Your task to perform on an android device: check battery use Image 0: 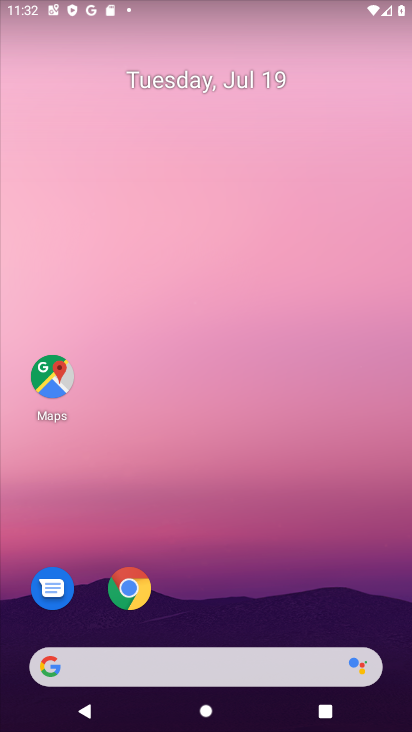
Step 0: drag from (235, 711) to (229, 319)
Your task to perform on an android device: check battery use Image 1: 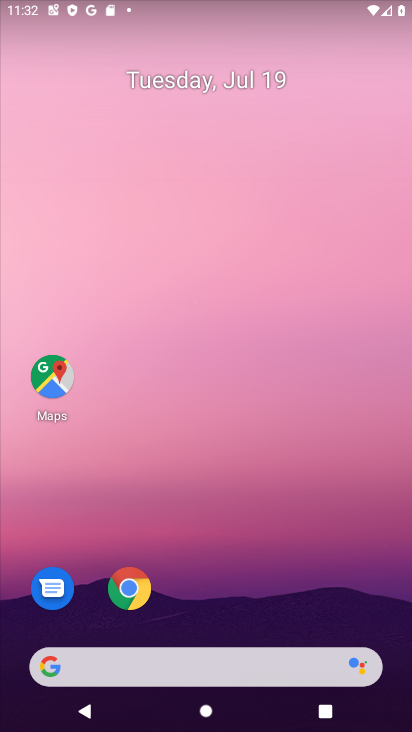
Step 1: drag from (259, 724) to (244, 207)
Your task to perform on an android device: check battery use Image 2: 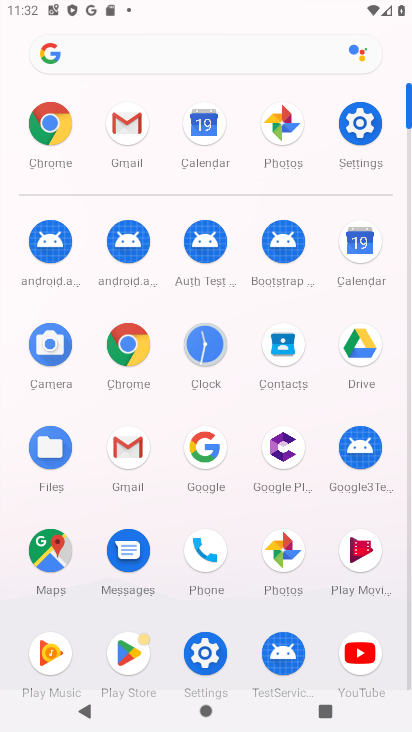
Step 2: click (356, 127)
Your task to perform on an android device: check battery use Image 3: 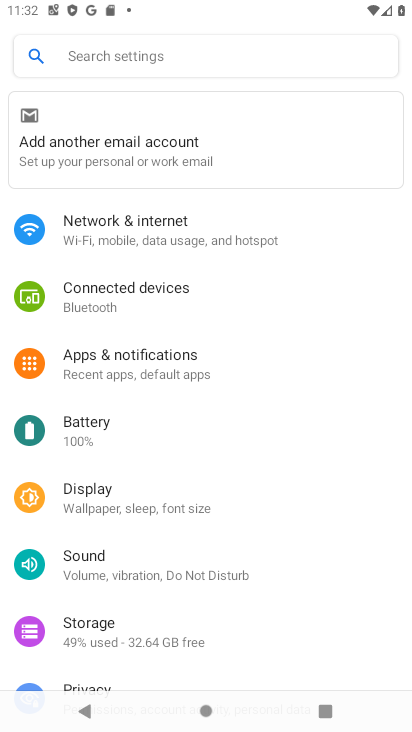
Step 3: click (77, 425)
Your task to perform on an android device: check battery use Image 4: 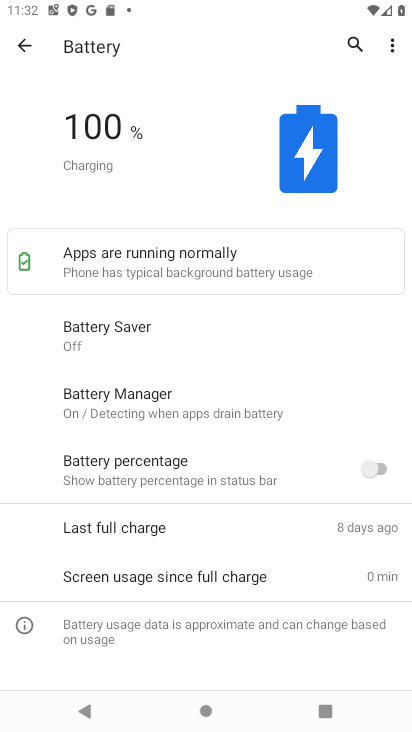
Step 4: click (392, 46)
Your task to perform on an android device: check battery use Image 5: 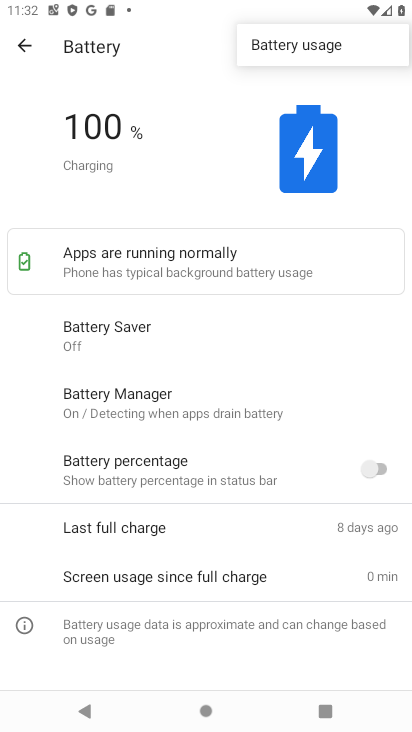
Step 5: click (319, 49)
Your task to perform on an android device: check battery use Image 6: 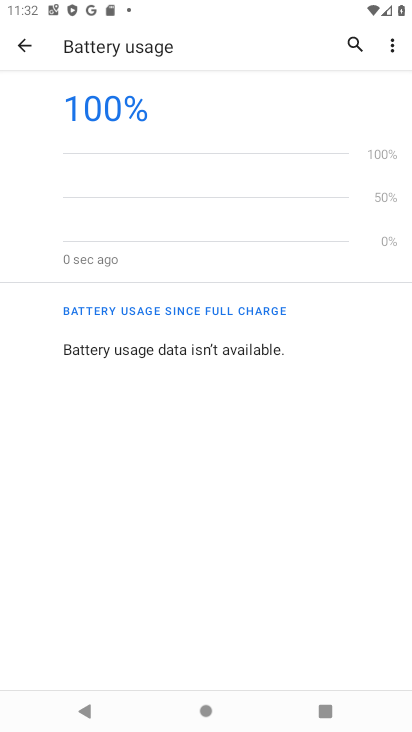
Step 6: task complete